Your task to perform on an android device: Clear the cart on amazon.com. Add usb-a to usb-b to the cart on amazon.com Image 0: 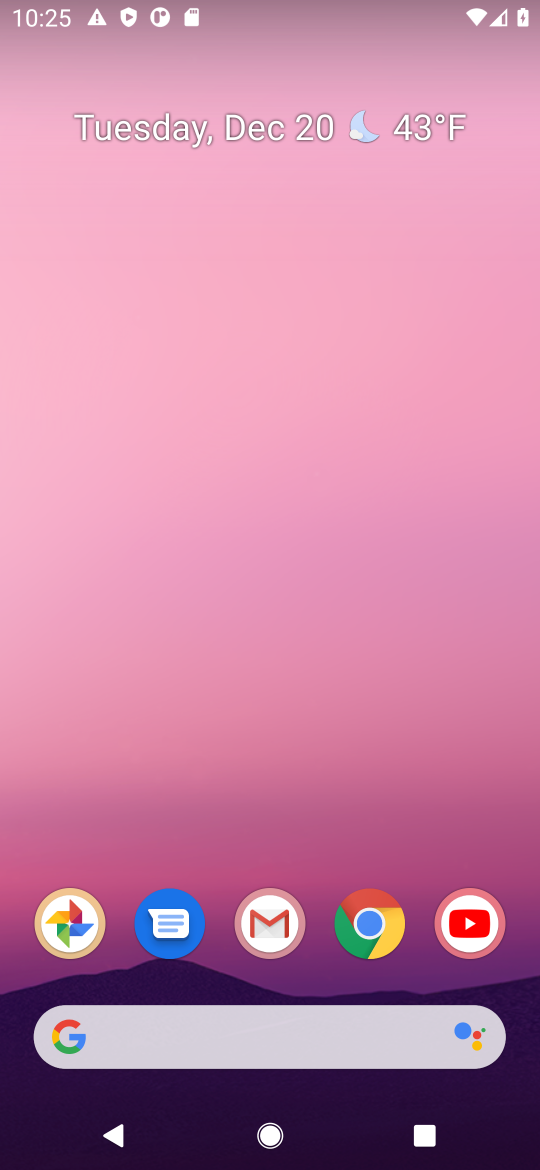
Step 0: click (385, 924)
Your task to perform on an android device: Clear the cart on amazon.com. Add usb-a to usb-b to the cart on amazon.com Image 1: 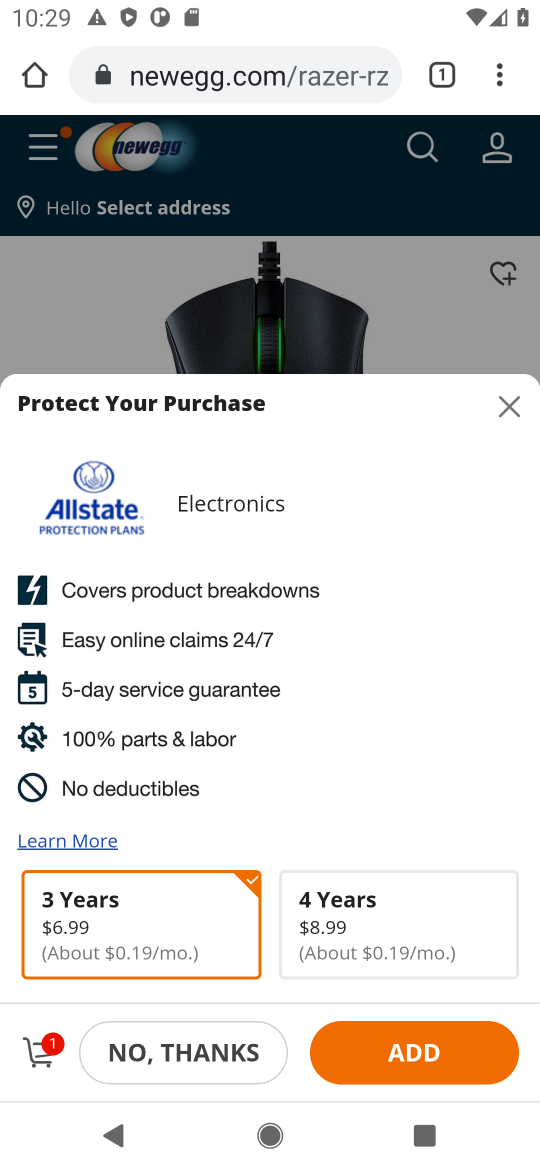
Step 1: task complete